Your task to perform on an android device: turn off sleep mode Image 0: 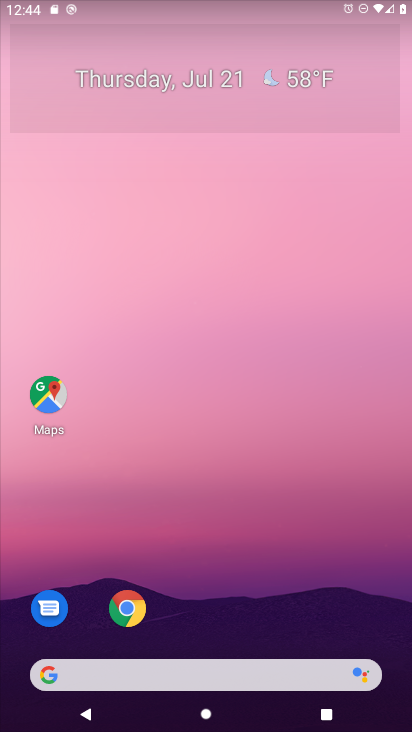
Step 0: press home button
Your task to perform on an android device: turn off sleep mode Image 1: 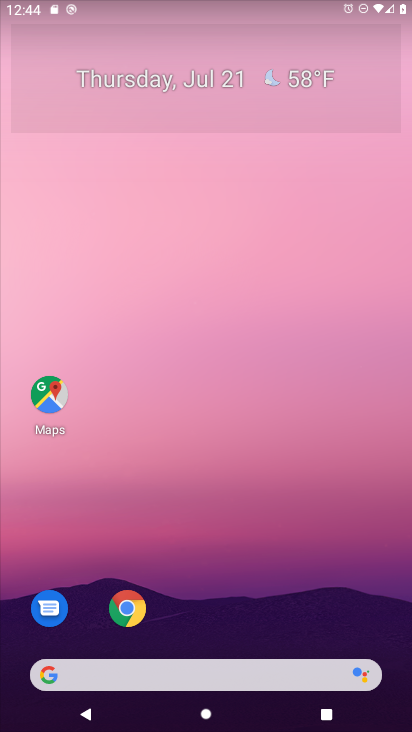
Step 1: drag from (208, 626) to (173, 109)
Your task to perform on an android device: turn off sleep mode Image 2: 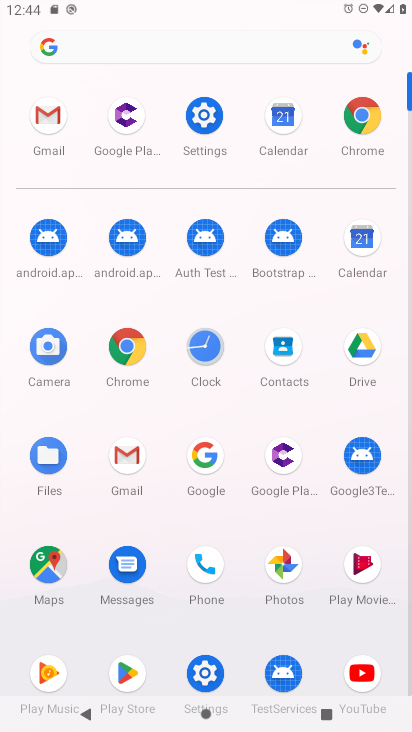
Step 2: click (200, 121)
Your task to perform on an android device: turn off sleep mode Image 3: 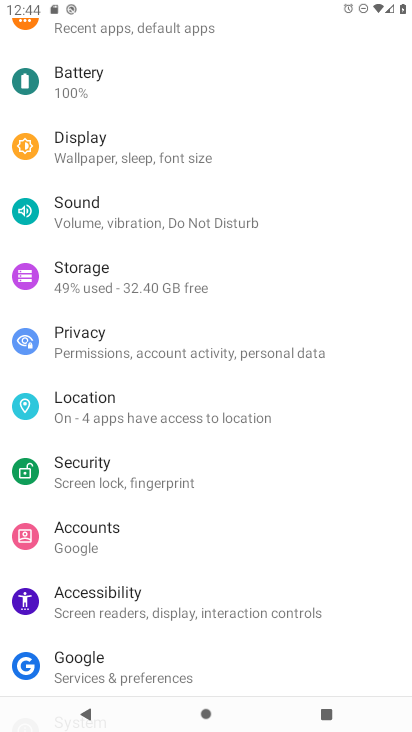
Step 3: click (93, 145)
Your task to perform on an android device: turn off sleep mode Image 4: 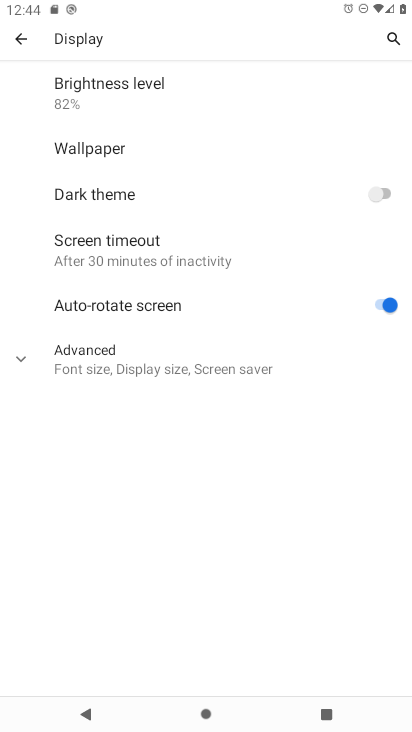
Step 4: task complete